Your task to perform on an android device: Go to eBay Image 0: 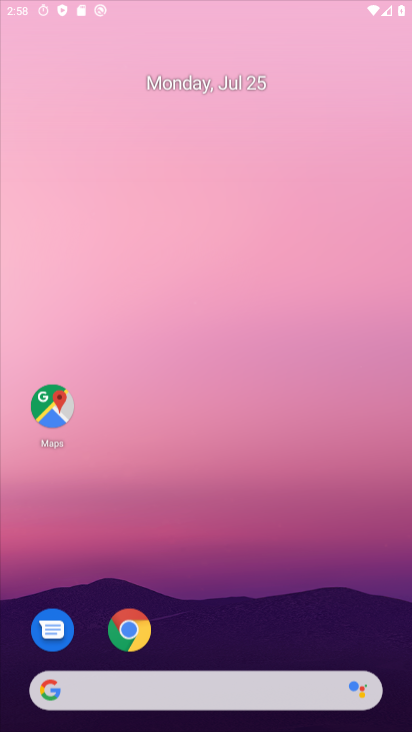
Step 0: click (171, 272)
Your task to perform on an android device: Go to eBay Image 1: 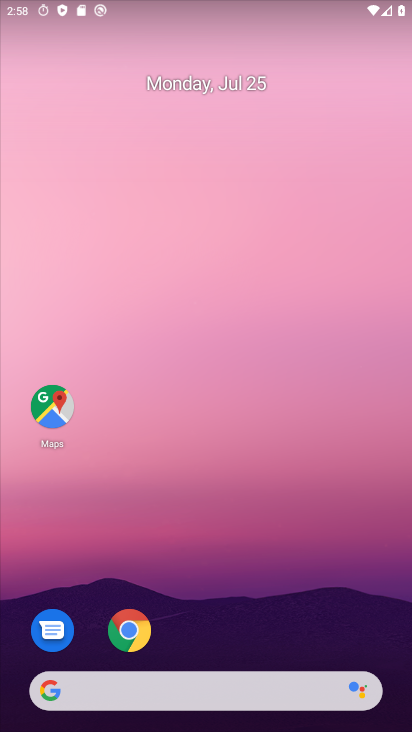
Step 1: drag from (217, 508) to (217, 143)
Your task to perform on an android device: Go to eBay Image 2: 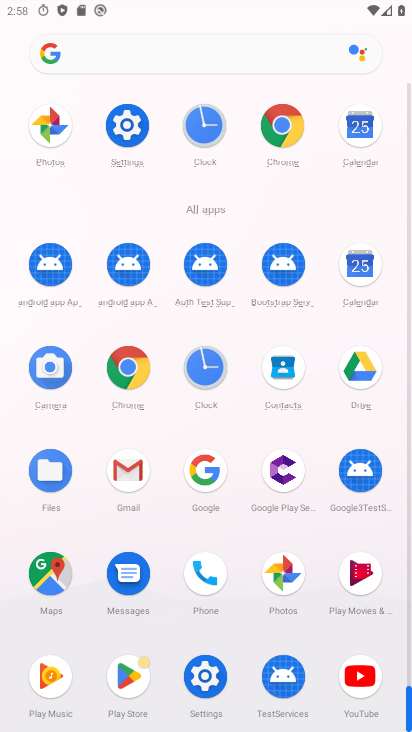
Step 2: click (286, 130)
Your task to perform on an android device: Go to eBay Image 3: 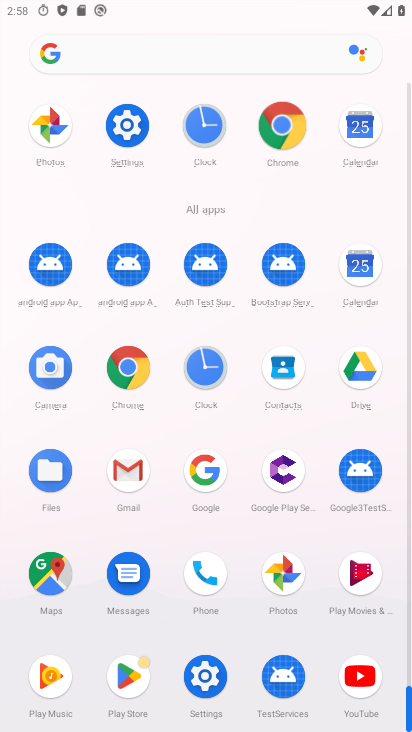
Step 3: click (287, 131)
Your task to perform on an android device: Go to eBay Image 4: 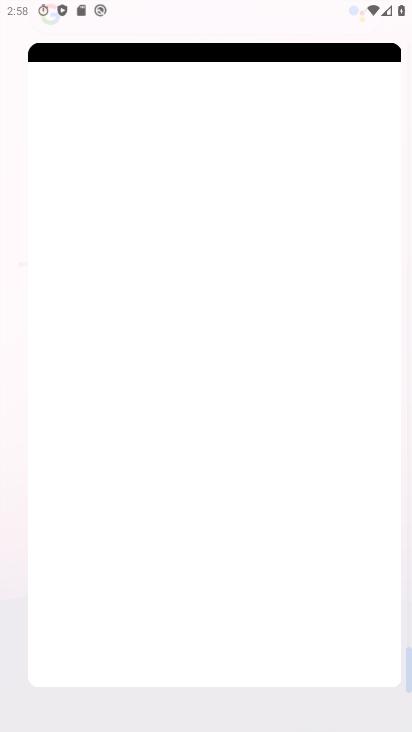
Step 4: click (287, 131)
Your task to perform on an android device: Go to eBay Image 5: 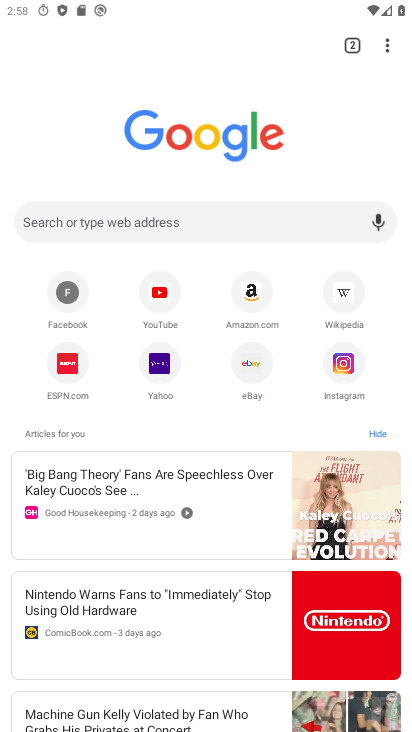
Step 5: click (259, 349)
Your task to perform on an android device: Go to eBay Image 6: 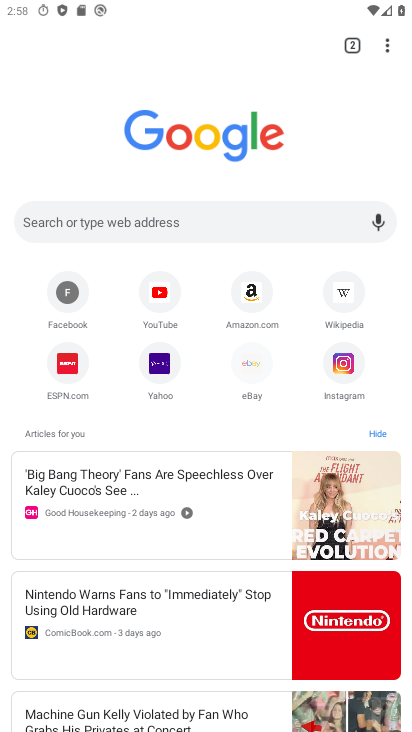
Step 6: click (262, 360)
Your task to perform on an android device: Go to eBay Image 7: 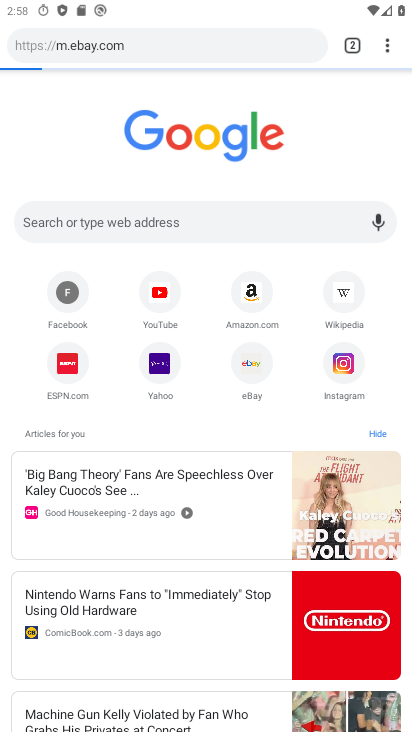
Step 7: click (263, 363)
Your task to perform on an android device: Go to eBay Image 8: 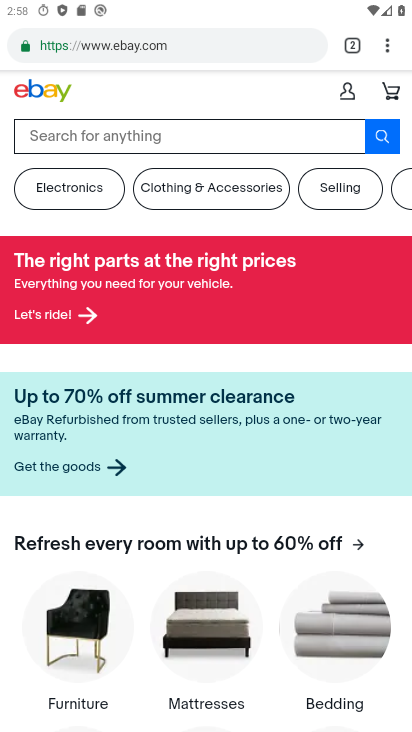
Step 8: task complete